Your task to perform on an android device: Open Yahoo.com Image 0: 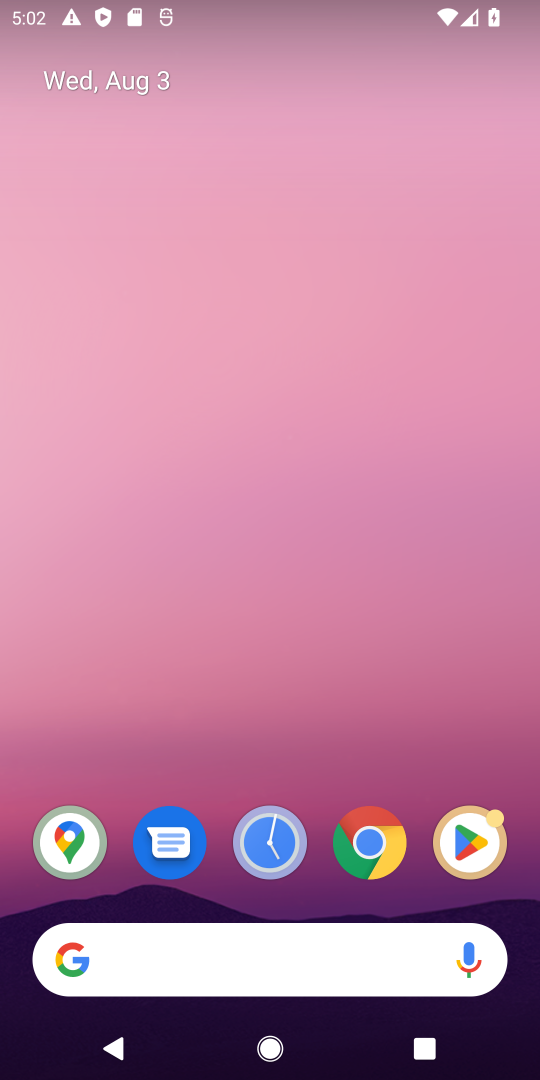
Step 0: click (262, 953)
Your task to perform on an android device: Open Yahoo.com Image 1: 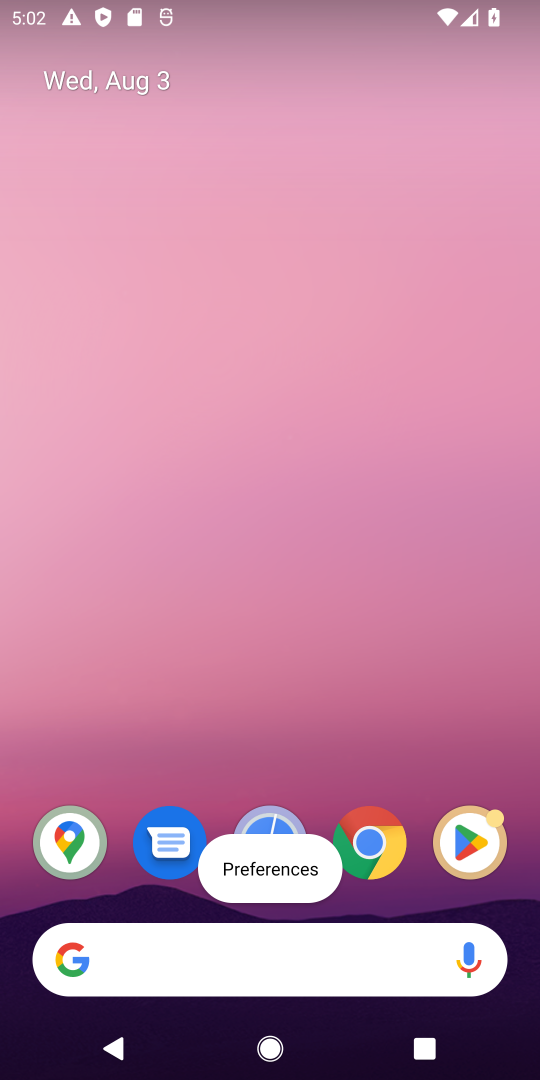
Step 1: click (312, 969)
Your task to perform on an android device: Open Yahoo.com Image 2: 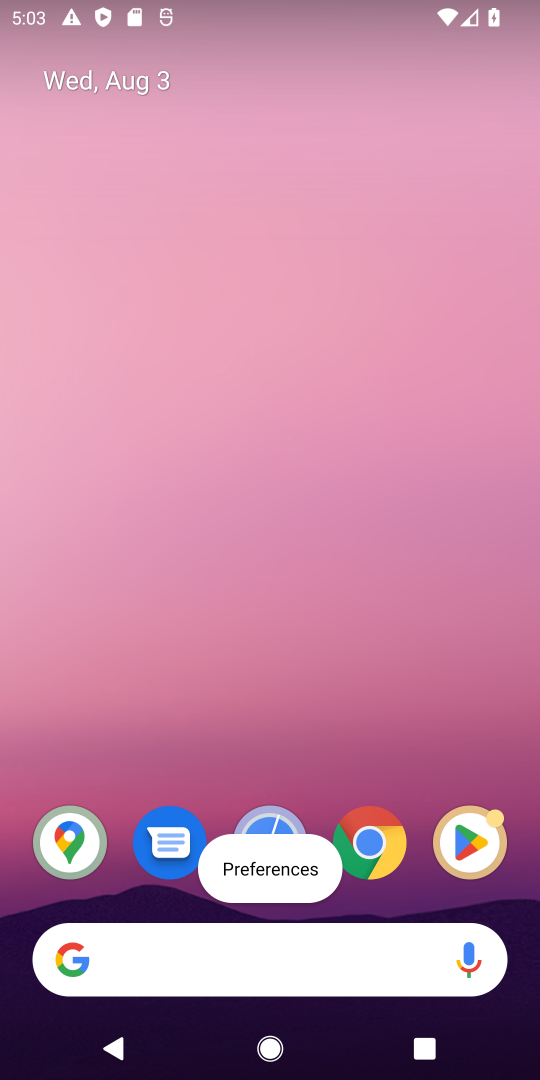
Step 2: click (271, 965)
Your task to perform on an android device: Open Yahoo.com Image 3: 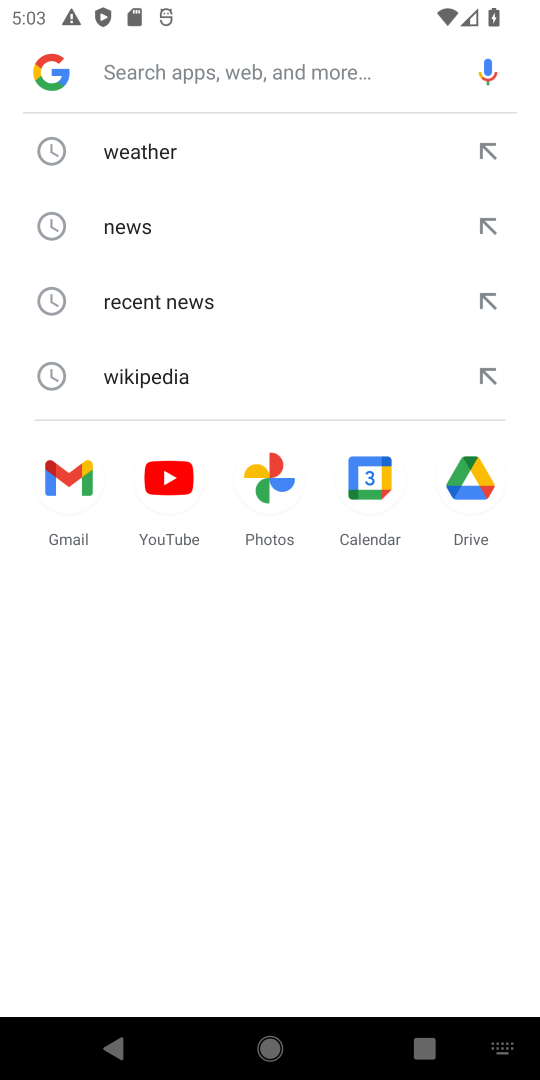
Step 3: type "yahoo.com"
Your task to perform on an android device: Open Yahoo.com Image 4: 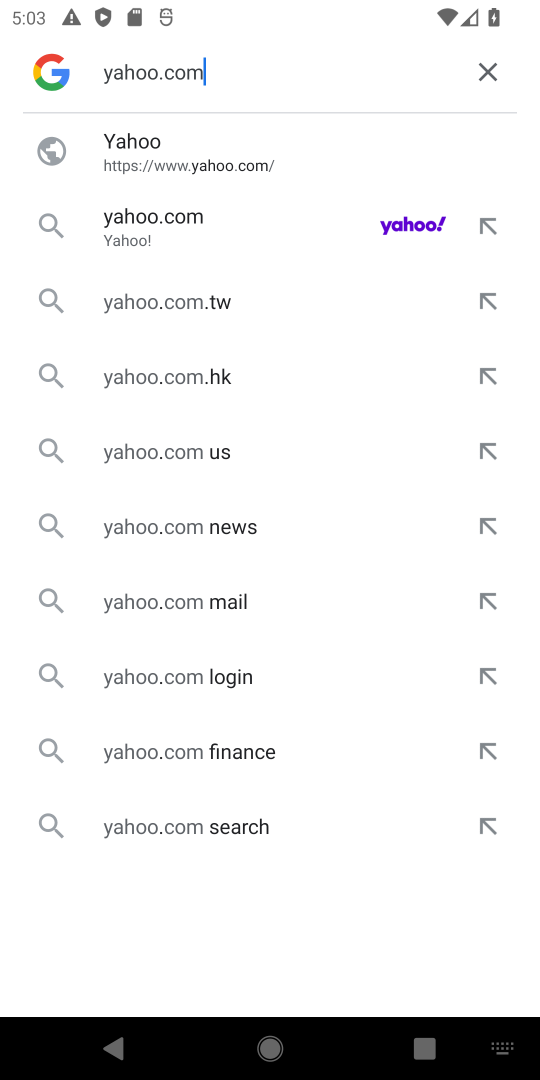
Step 4: click (263, 149)
Your task to perform on an android device: Open Yahoo.com Image 5: 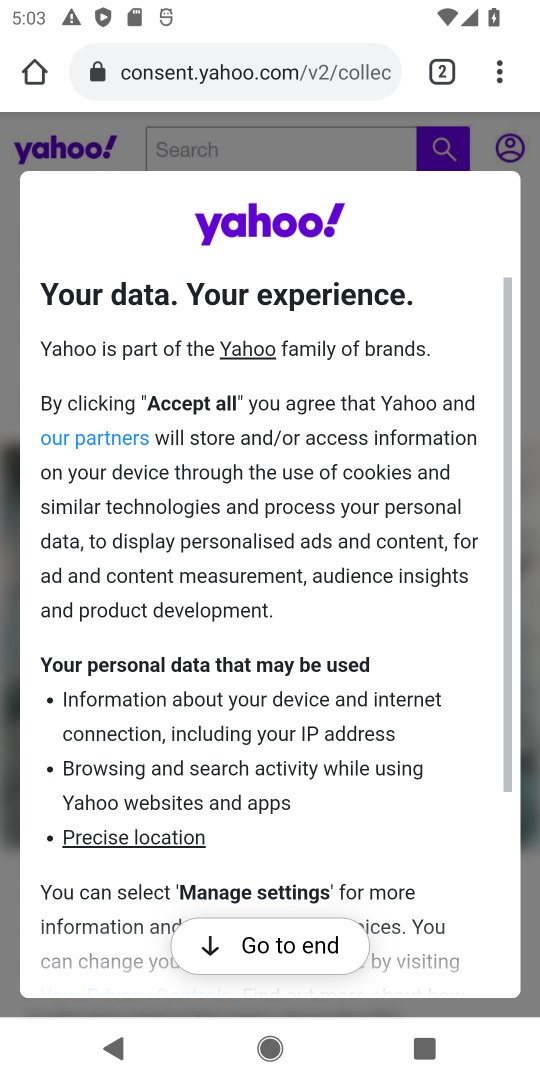
Step 5: task complete